Your task to perform on an android device: open app "Pinterest" Image 0: 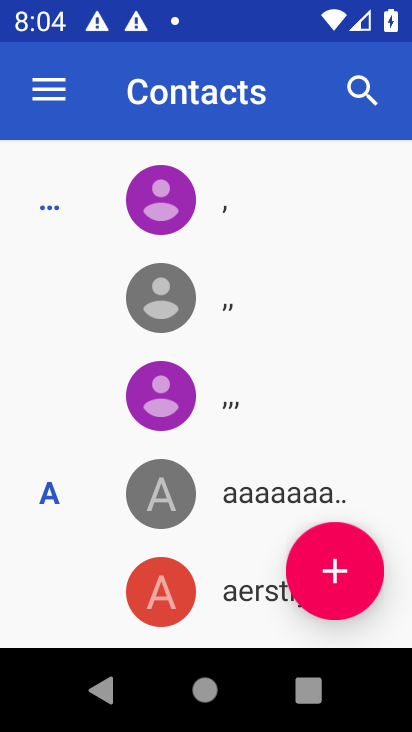
Step 0: press home button
Your task to perform on an android device: open app "Pinterest" Image 1: 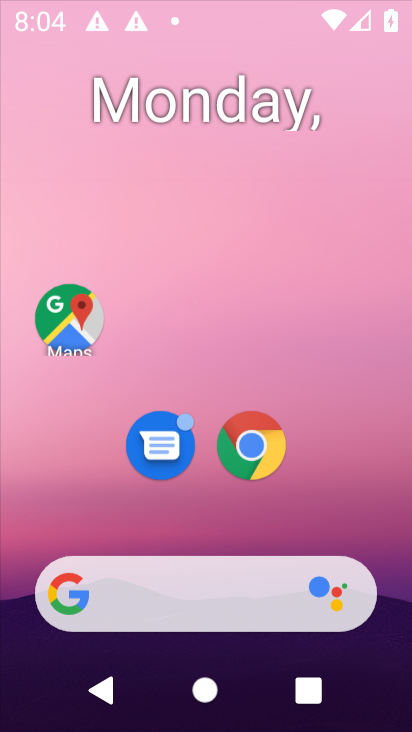
Step 1: drag from (392, 603) to (211, 58)
Your task to perform on an android device: open app "Pinterest" Image 2: 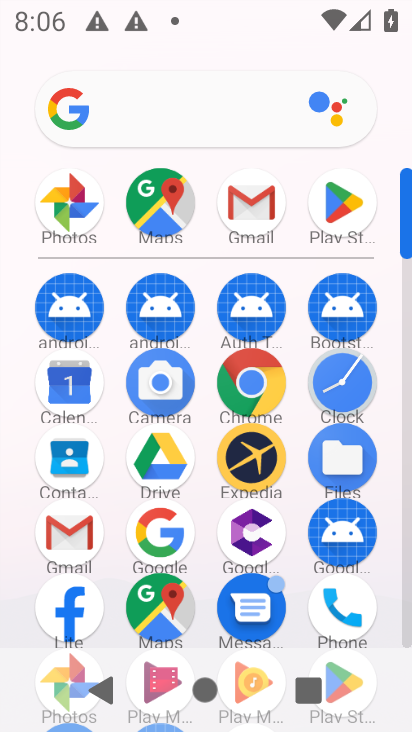
Step 2: click (335, 201)
Your task to perform on an android device: open app "Pinterest" Image 3: 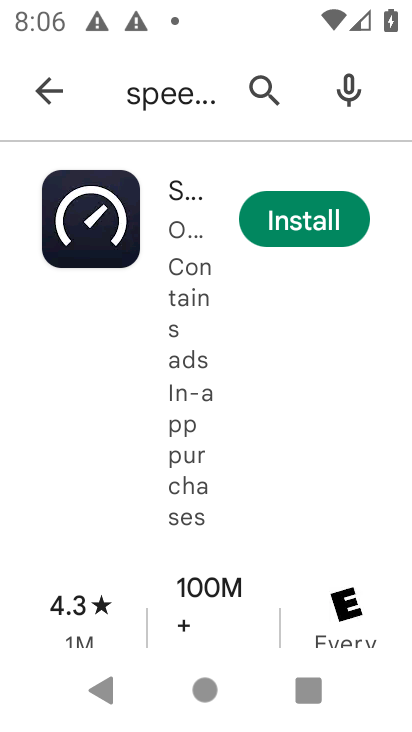
Step 3: press back button
Your task to perform on an android device: open app "Pinterest" Image 4: 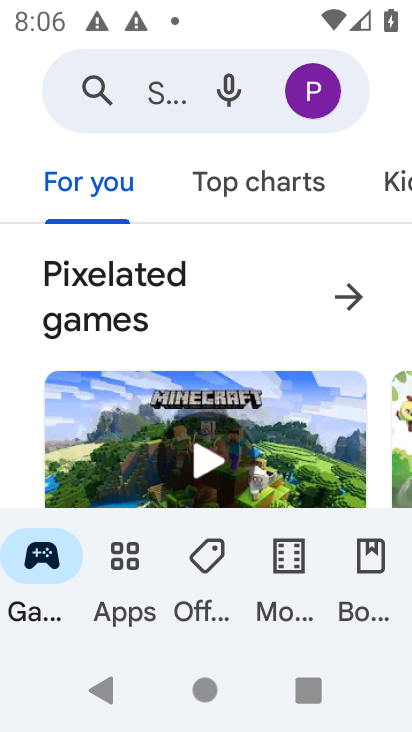
Step 4: click (156, 98)
Your task to perform on an android device: open app "Pinterest" Image 5: 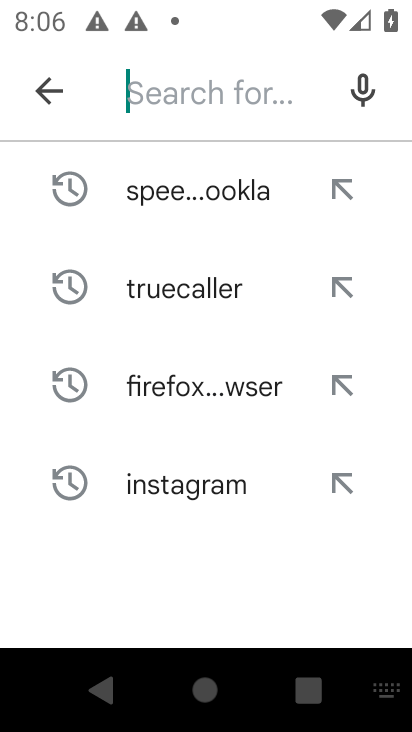
Step 5: type "Pinterest"
Your task to perform on an android device: open app "Pinterest" Image 6: 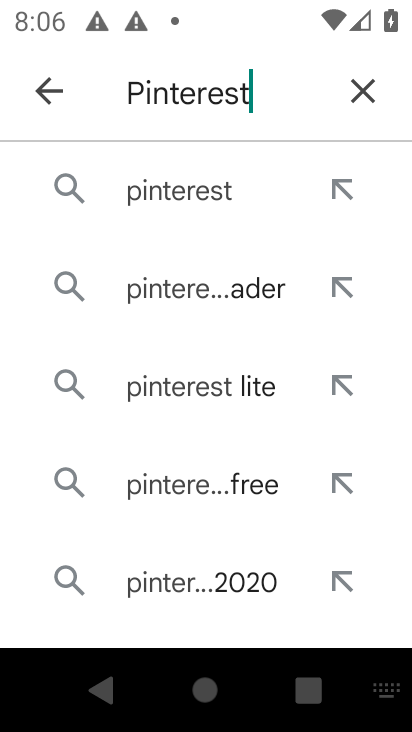
Step 6: click (183, 188)
Your task to perform on an android device: open app "Pinterest" Image 7: 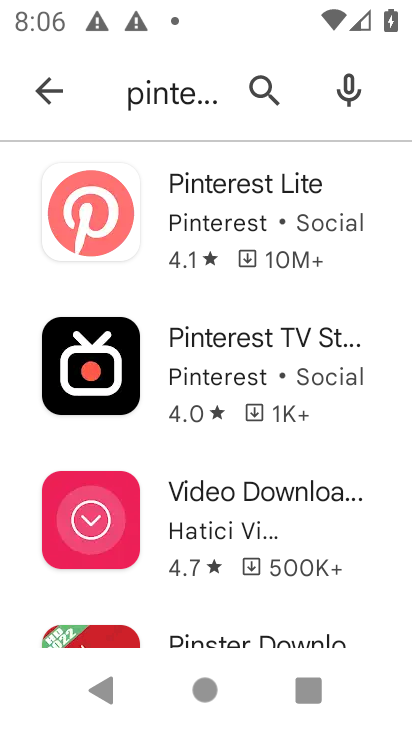
Step 7: task complete